Your task to perform on an android device: What's the weather today? Image 0: 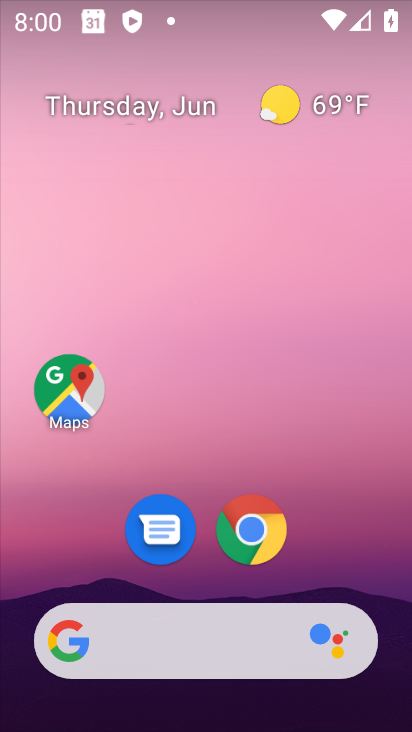
Step 0: click (194, 640)
Your task to perform on an android device: What's the weather today? Image 1: 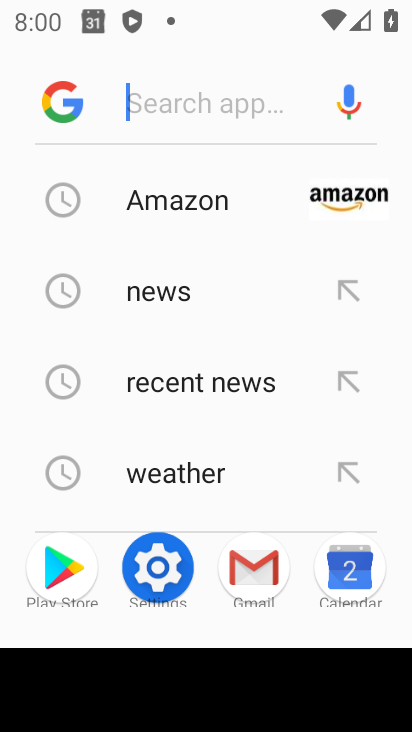
Step 1: click (201, 491)
Your task to perform on an android device: What's the weather today? Image 2: 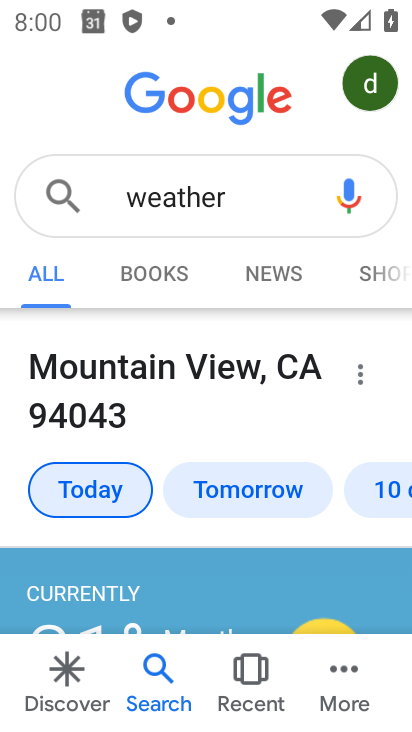
Step 2: click (84, 478)
Your task to perform on an android device: What's the weather today? Image 3: 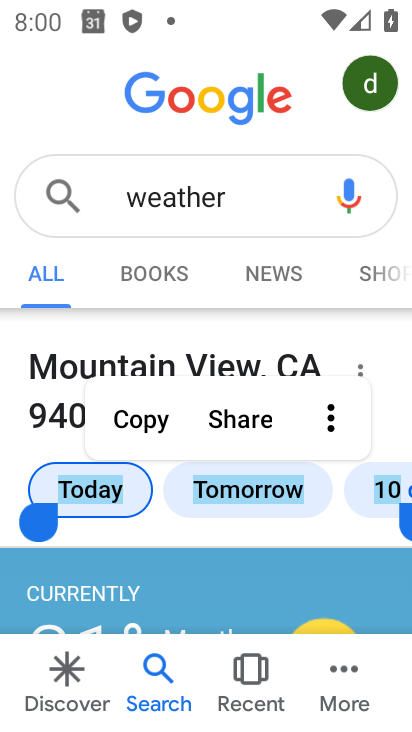
Step 3: task complete